Your task to perform on an android device: turn notification dots on Image 0: 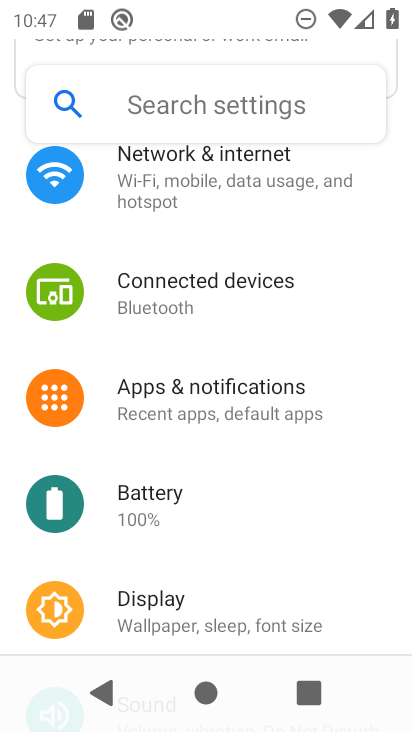
Step 0: click (267, 404)
Your task to perform on an android device: turn notification dots on Image 1: 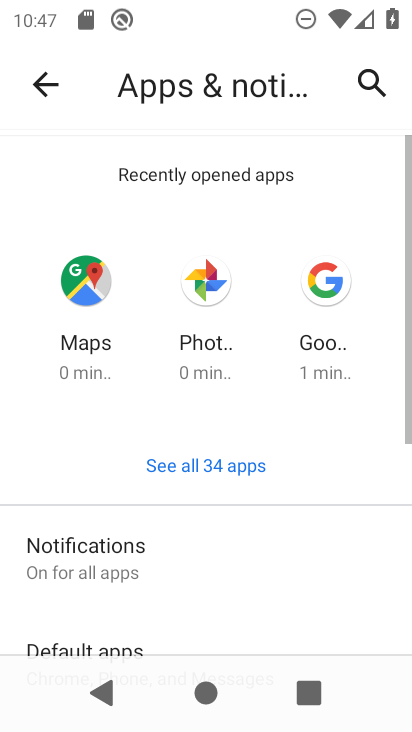
Step 1: drag from (319, 573) to (305, 181)
Your task to perform on an android device: turn notification dots on Image 2: 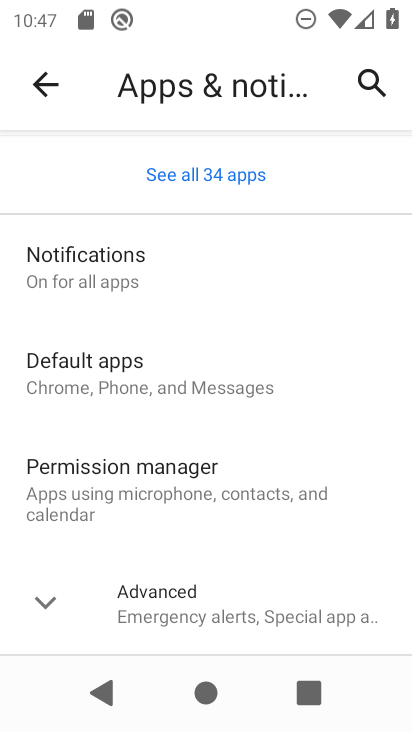
Step 2: click (42, 592)
Your task to perform on an android device: turn notification dots on Image 3: 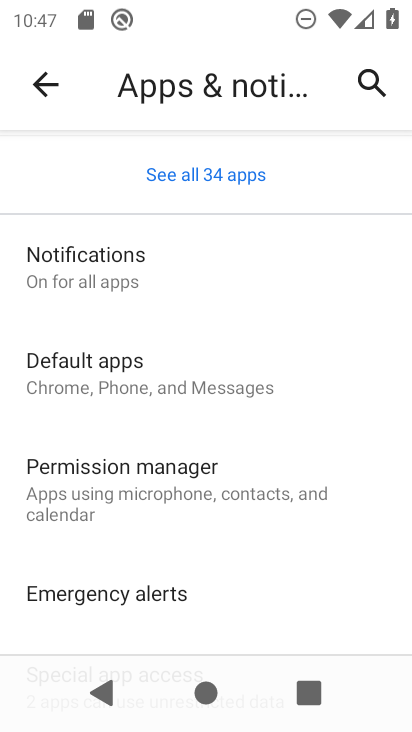
Step 3: click (148, 271)
Your task to perform on an android device: turn notification dots on Image 4: 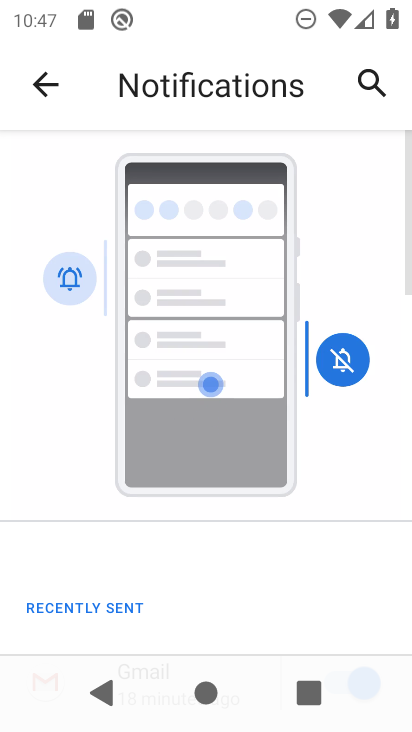
Step 4: drag from (256, 583) to (251, 157)
Your task to perform on an android device: turn notification dots on Image 5: 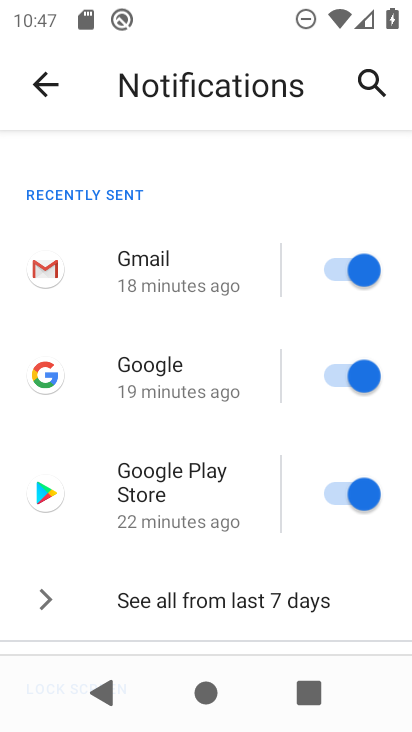
Step 5: drag from (208, 562) to (233, 173)
Your task to perform on an android device: turn notification dots on Image 6: 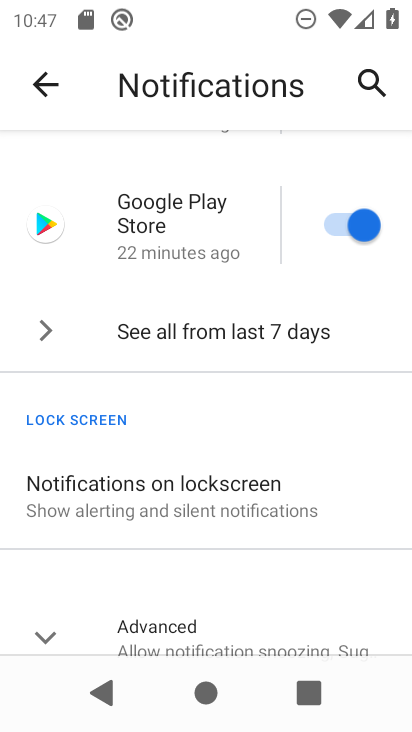
Step 6: drag from (182, 627) to (221, 176)
Your task to perform on an android device: turn notification dots on Image 7: 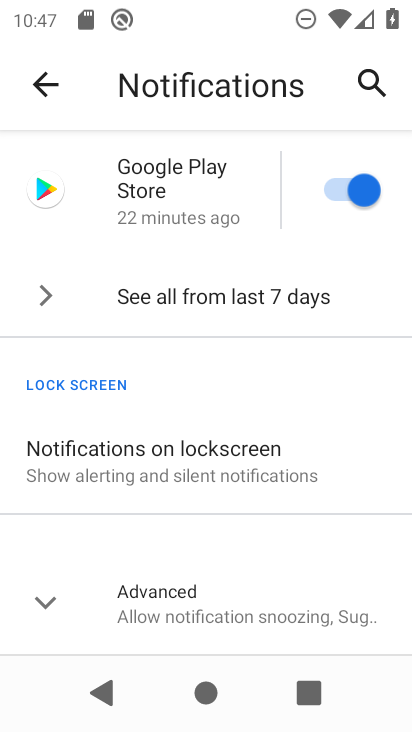
Step 7: click (51, 601)
Your task to perform on an android device: turn notification dots on Image 8: 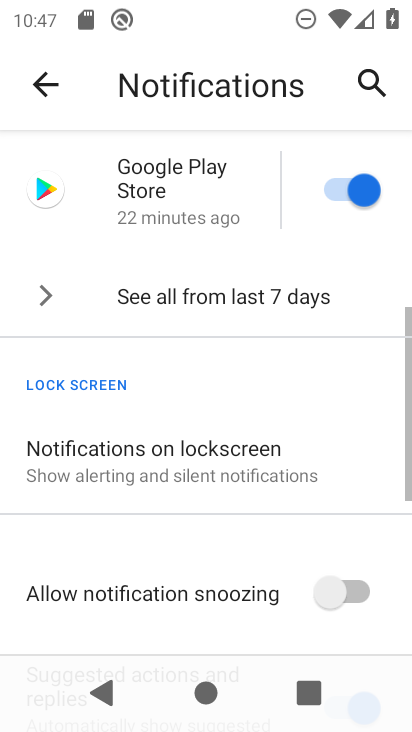
Step 8: task complete